Your task to perform on an android device: Search for seafood restaurants on Google Maps Image 0: 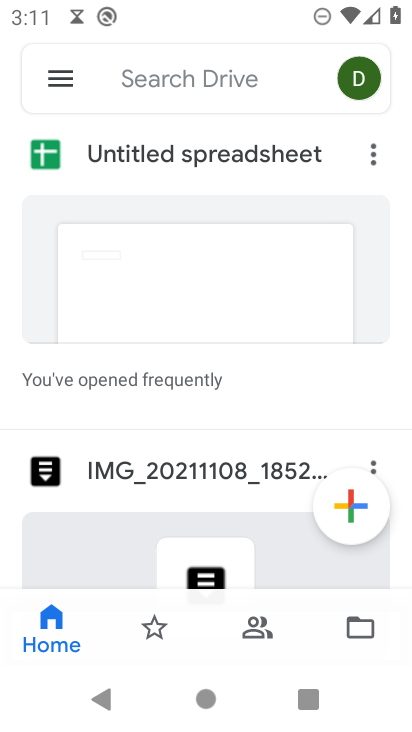
Step 0: press home button
Your task to perform on an android device: Search for seafood restaurants on Google Maps Image 1: 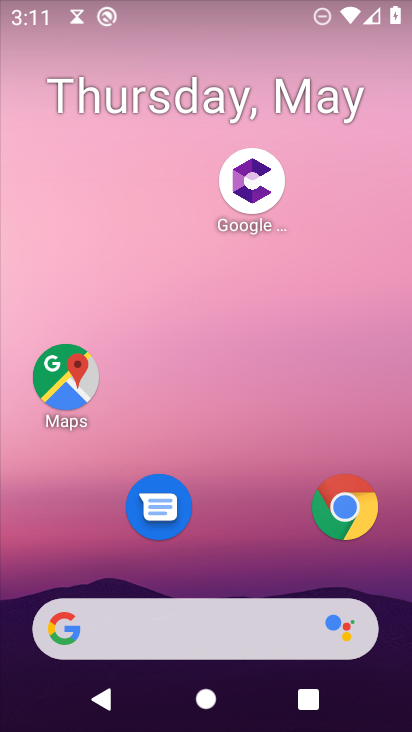
Step 1: click (56, 384)
Your task to perform on an android device: Search for seafood restaurants on Google Maps Image 2: 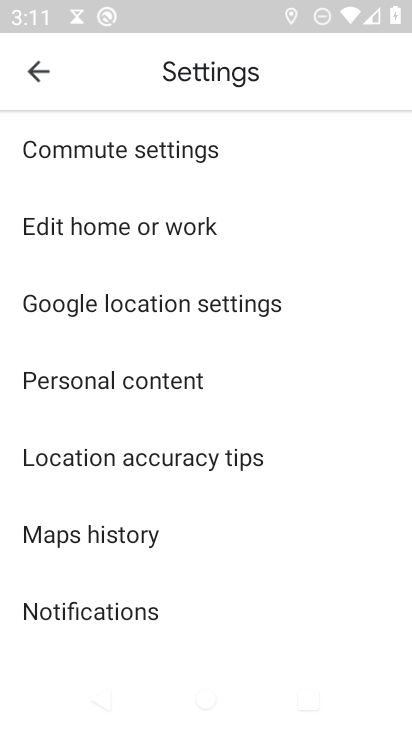
Step 2: press back button
Your task to perform on an android device: Search for seafood restaurants on Google Maps Image 3: 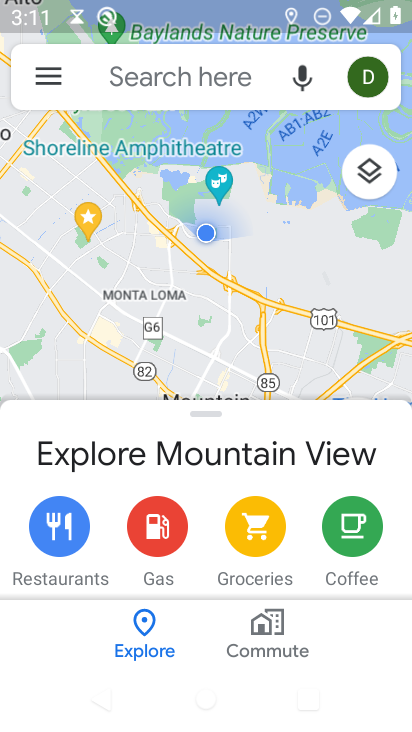
Step 3: press back button
Your task to perform on an android device: Search for seafood restaurants on Google Maps Image 4: 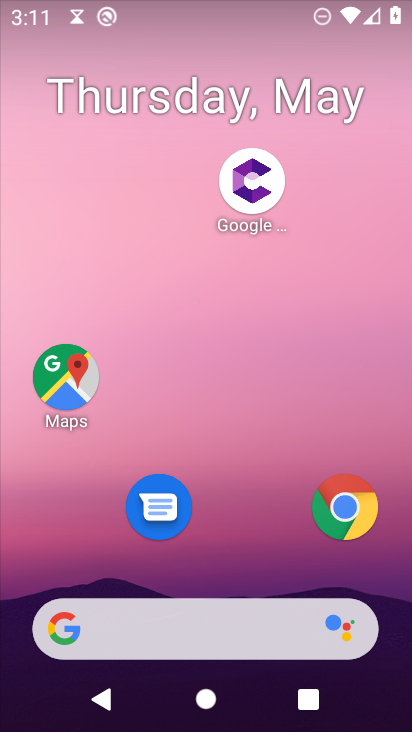
Step 4: click (48, 381)
Your task to perform on an android device: Search for seafood restaurants on Google Maps Image 5: 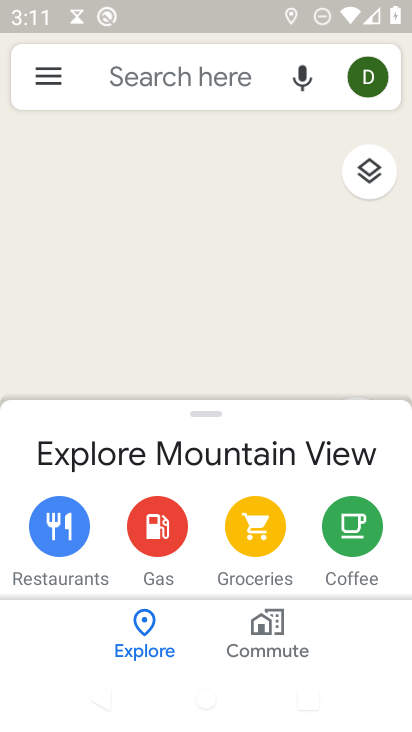
Step 5: click (164, 67)
Your task to perform on an android device: Search for seafood restaurants on Google Maps Image 6: 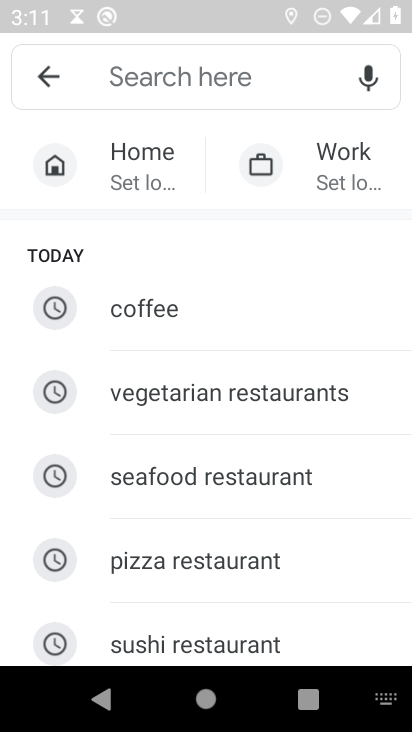
Step 6: click (268, 479)
Your task to perform on an android device: Search for seafood restaurants on Google Maps Image 7: 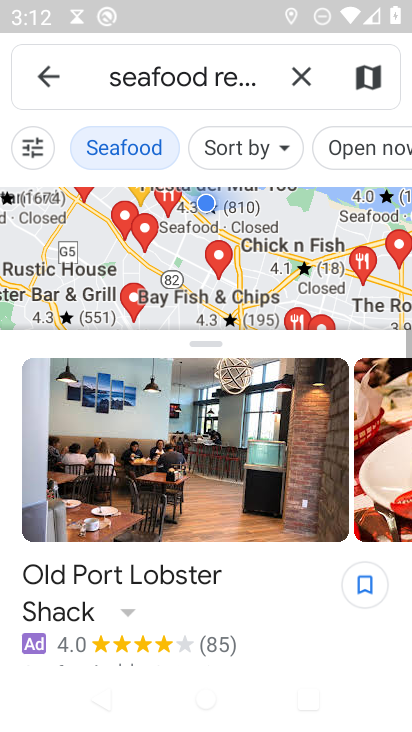
Step 7: task complete